Your task to perform on an android device: Search for Italian restaurants on Maps Image 0: 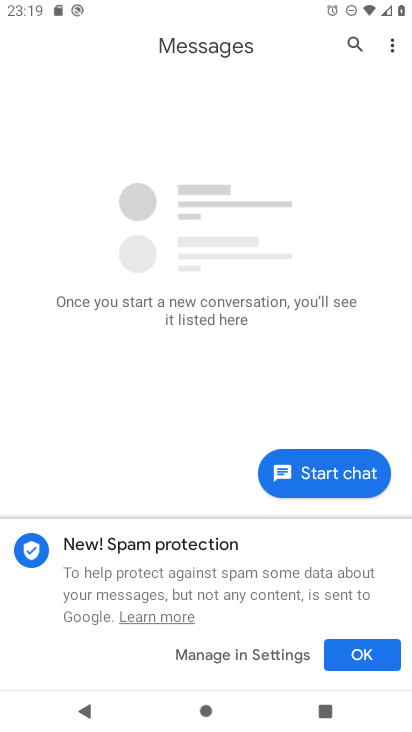
Step 0: press home button
Your task to perform on an android device: Search for Italian restaurants on Maps Image 1: 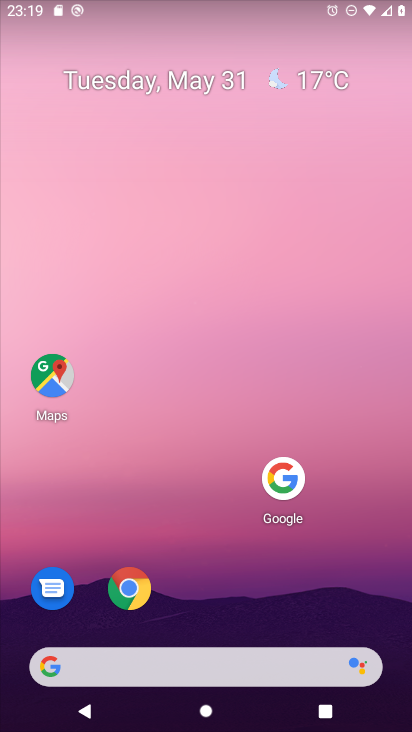
Step 1: click (50, 380)
Your task to perform on an android device: Search for Italian restaurants on Maps Image 2: 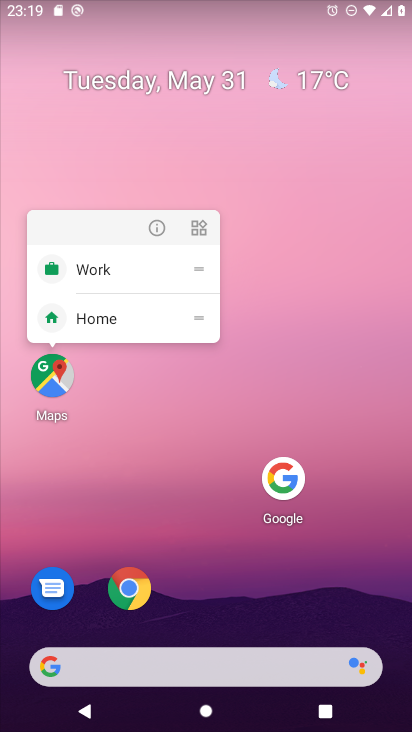
Step 2: click (50, 381)
Your task to perform on an android device: Search for Italian restaurants on Maps Image 3: 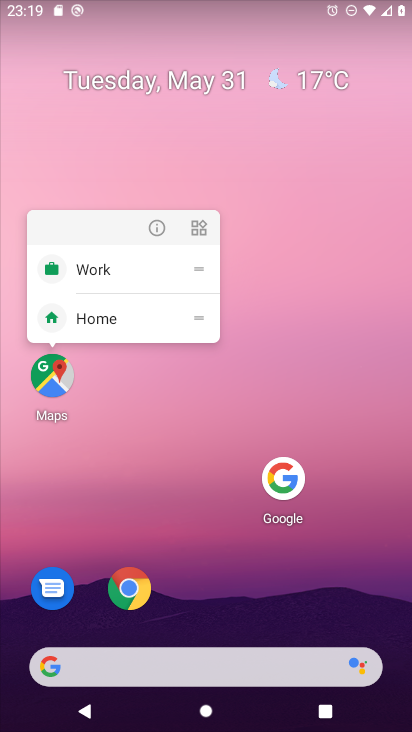
Step 3: click (52, 389)
Your task to perform on an android device: Search for Italian restaurants on Maps Image 4: 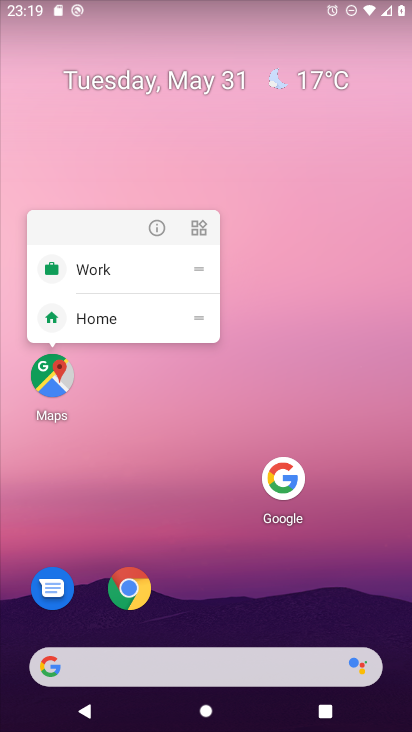
Step 4: click (53, 393)
Your task to perform on an android device: Search for Italian restaurants on Maps Image 5: 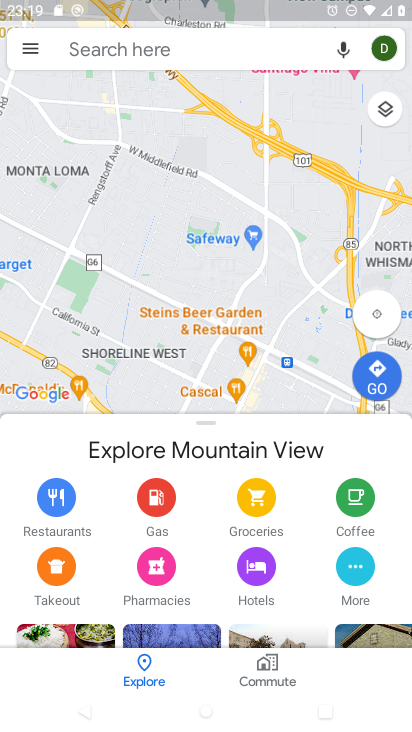
Step 5: click (151, 48)
Your task to perform on an android device: Search for Italian restaurants on Maps Image 6: 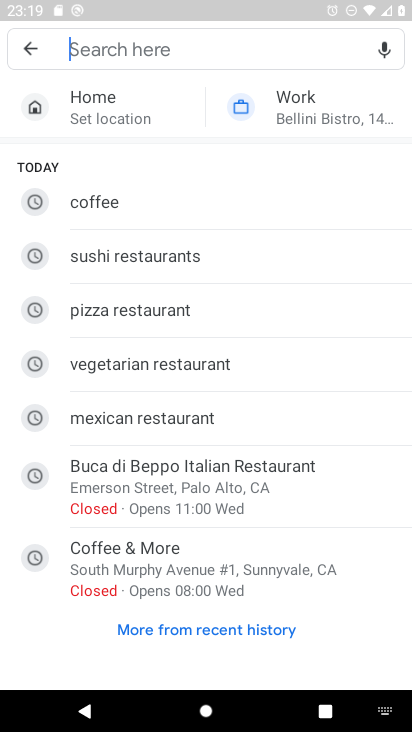
Step 6: type "italian"
Your task to perform on an android device: Search for Italian restaurants on Maps Image 7: 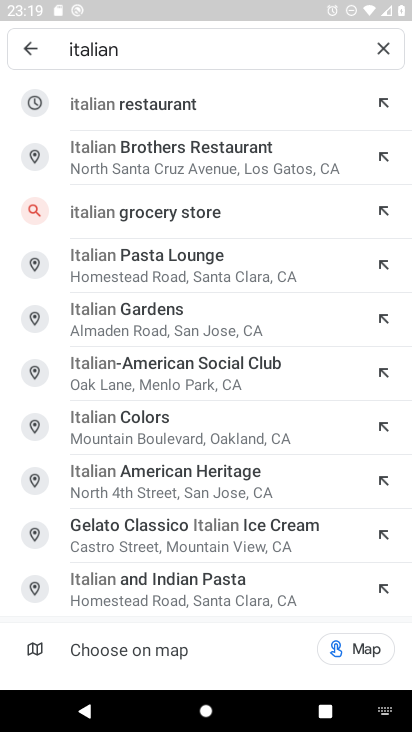
Step 7: click (117, 117)
Your task to perform on an android device: Search for Italian restaurants on Maps Image 8: 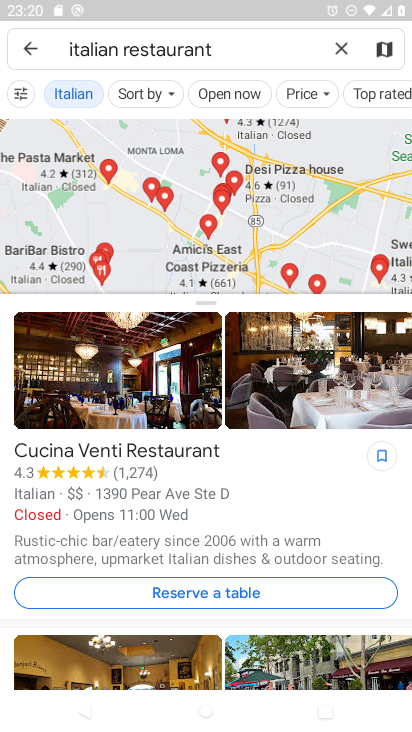
Step 8: task complete